Your task to perform on an android device: turn notification dots off Image 0: 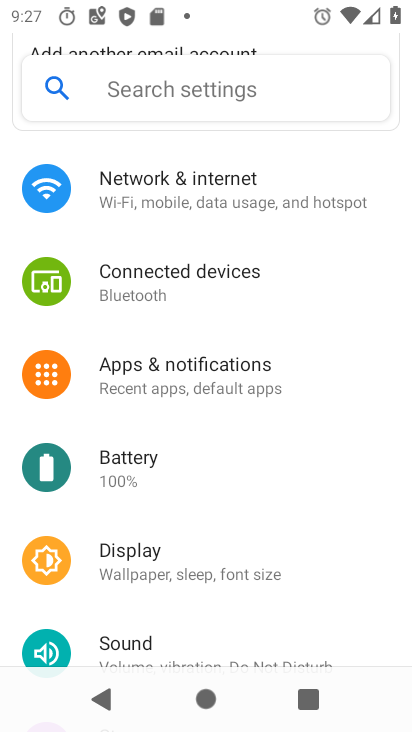
Step 0: click (190, 372)
Your task to perform on an android device: turn notification dots off Image 1: 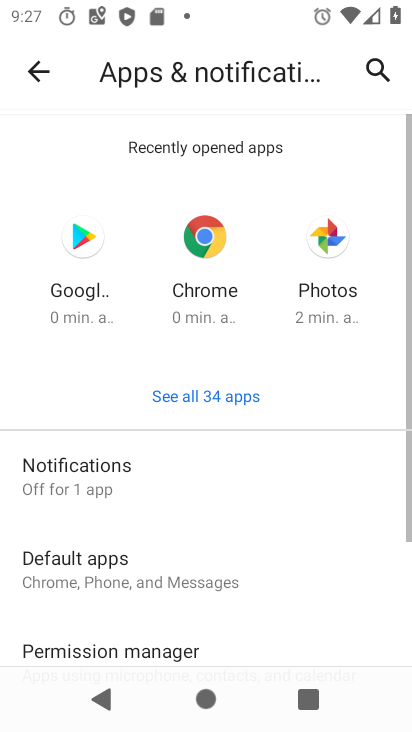
Step 1: click (82, 467)
Your task to perform on an android device: turn notification dots off Image 2: 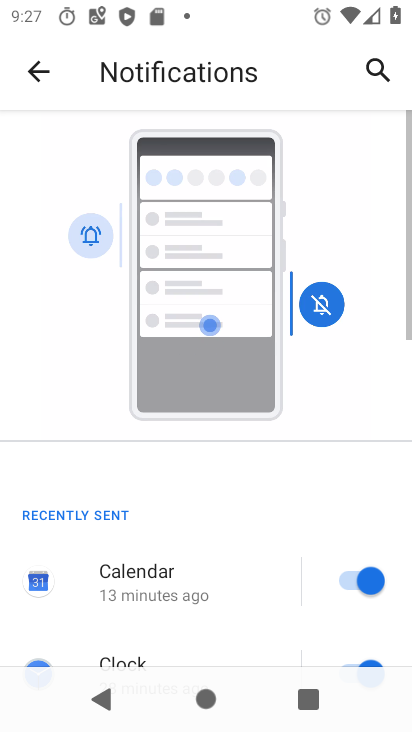
Step 2: drag from (213, 529) to (194, 45)
Your task to perform on an android device: turn notification dots off Image 3: 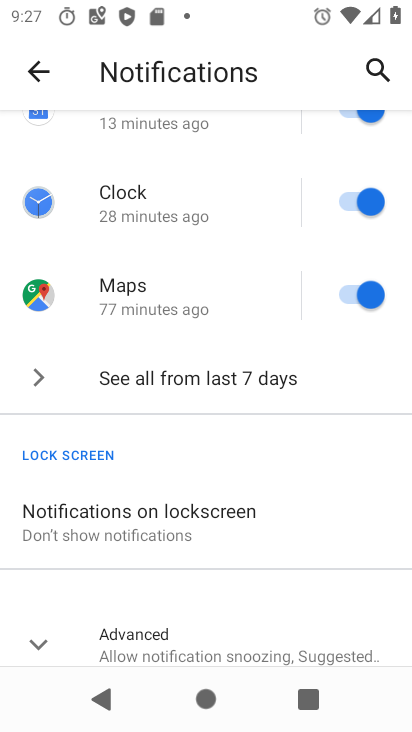
Step 3: drag from (166, 495) to (165, 65)
Your task to perform on an android device: turn notification dots off Image 4: 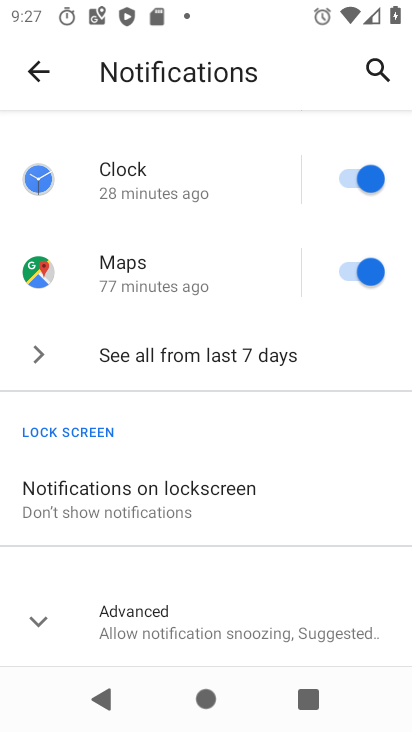
Step 4: click (39, 629)
Your task to perform on an android device: turn notification dots off Image 5: 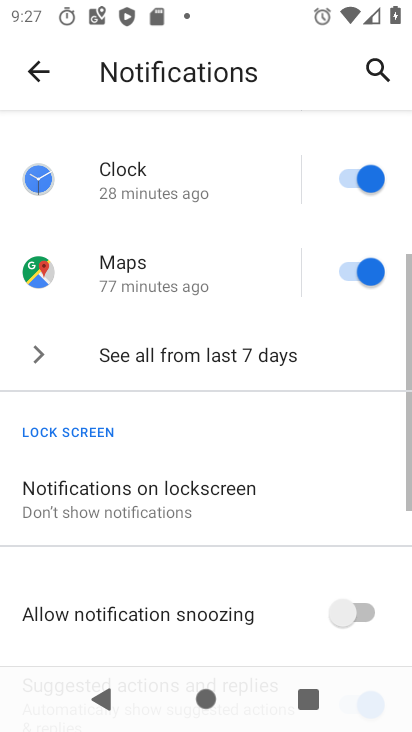
Step 5: task complete